Your task to perform on an android device: Go to sound settings Image 0: 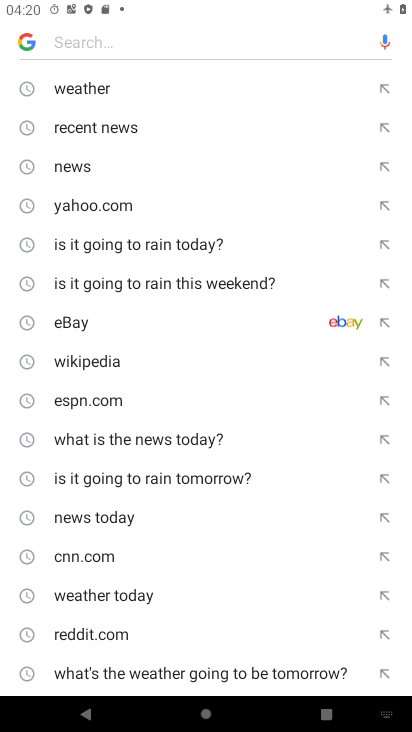
Step 0: press home button
Your task to perform on an android device: Go to sound settings Image 1: 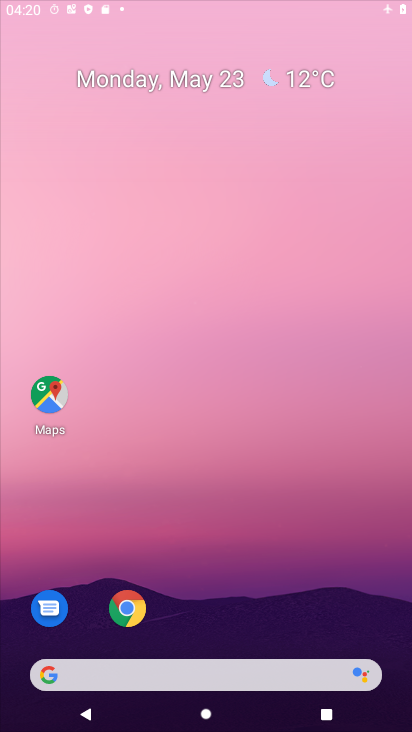
Step 1: drag from (319, 603) to (163, 31)
Your task to perform on an android device: Go to sound settings Image 2: 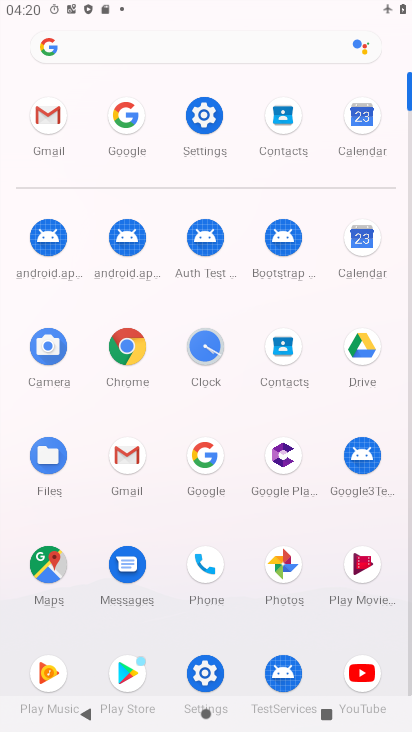
Step 2: click (202, 151)
Your task to perform on an android device: Go to sound settings Image 3: 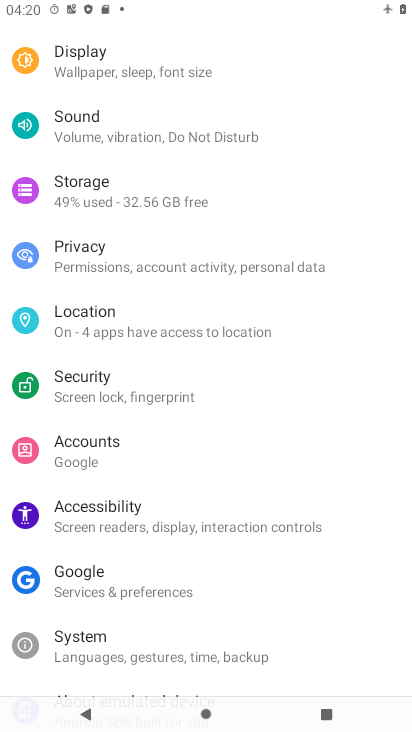
Step 3: click (171, 133)
Your task to perform on an android device: Go to sound settings Image 4: 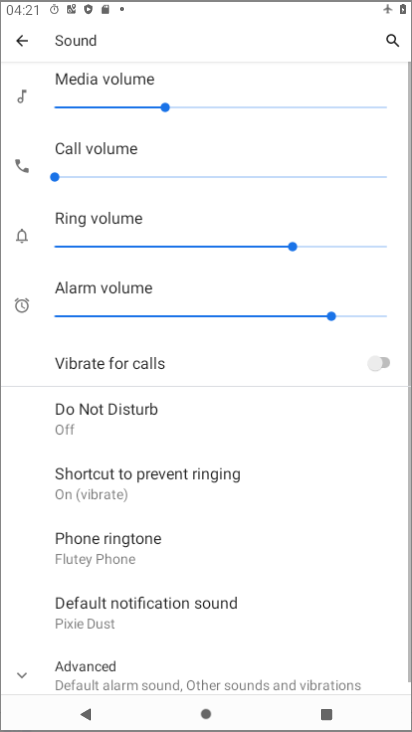
Step 4: task complete